Your task to perform on an android device: Open privacy settings Image 0: 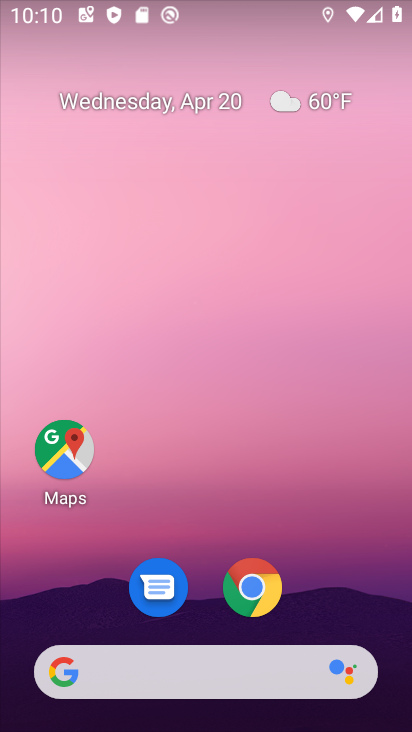
Step 0: click (254, 593)
Your task to perform on an android device: Open privacy settings Image 1: 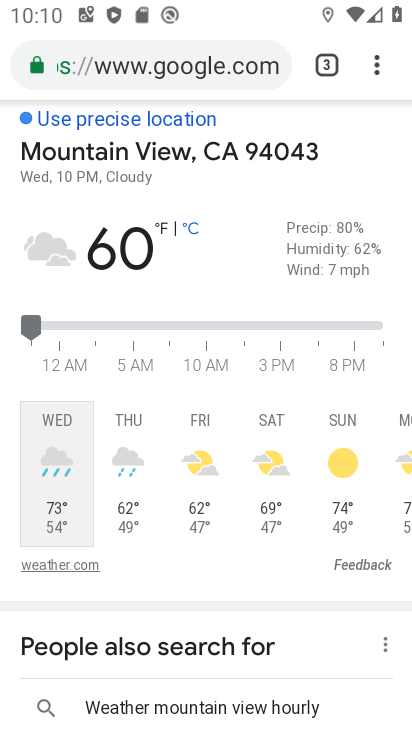
Step 1: drag from (377, 62) to (147, 637)
Your task to perform on an android device: Open privacy settings Image 2: 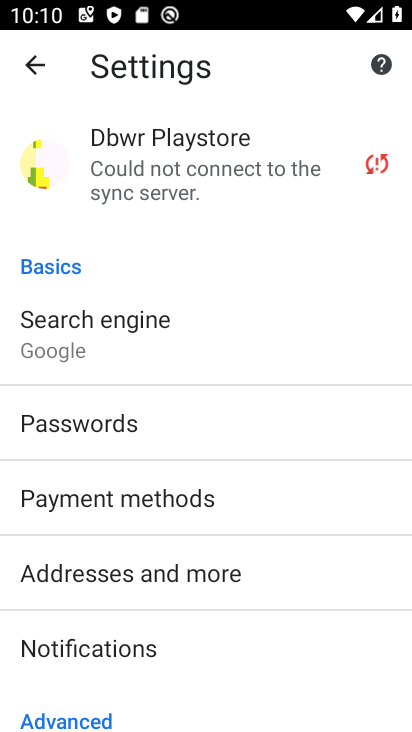
Step 2: drag from (210, 648) to (207, 336)
Your task to perform on an android device: Open privacy settings Image 3: 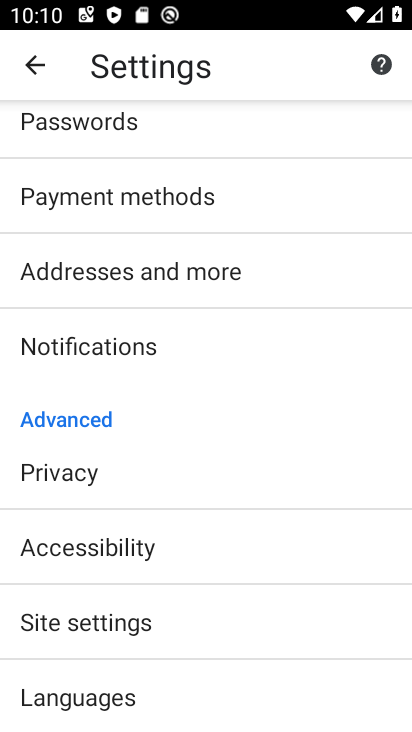
Step 3: click (62, 473)
Your task to perform on an android device: Open privacy settings Image 4: 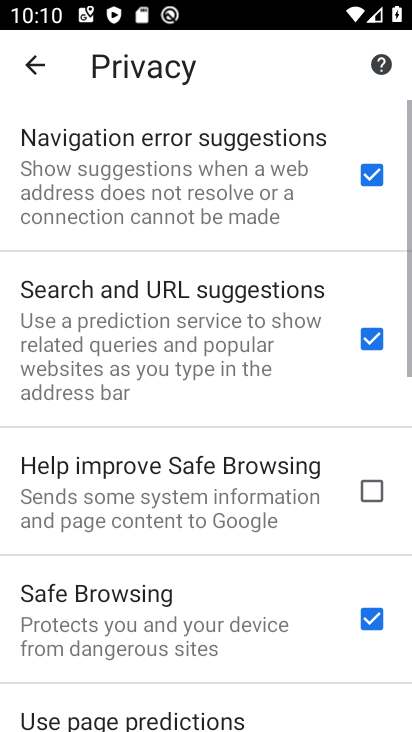
Step 4: task complete